Your task to perform on an android device: delete a single message in the gmail app Image 0: 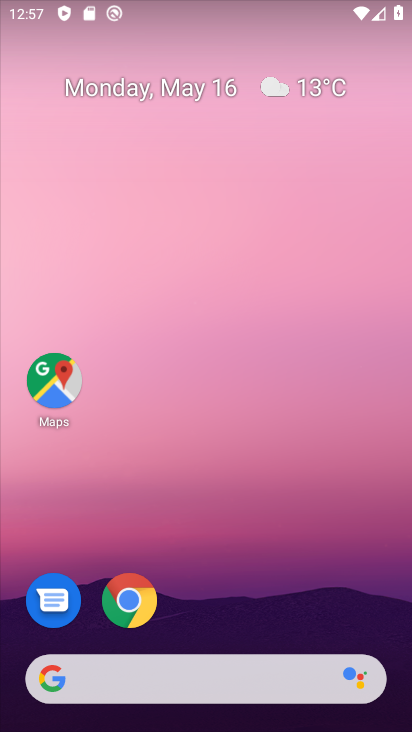
Step 0: drag from (223, 617) to (104, 141)
Your task to perform on an android device: delete a single message in the gmail app Image 1: 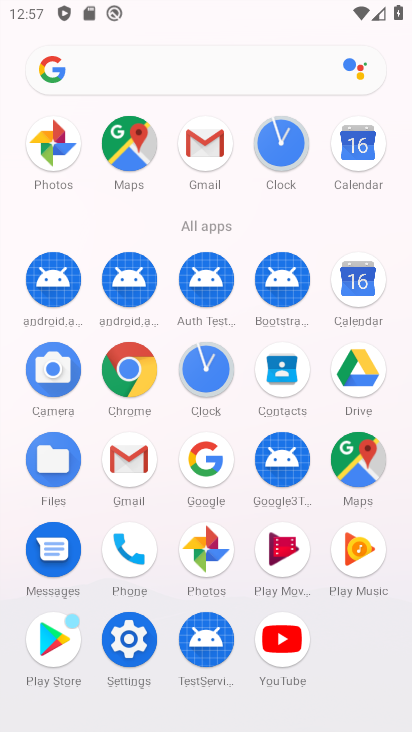
Step 1: click (204, 126)
Your task to perform on an android device: delete a single message in the gmail app Image 2: 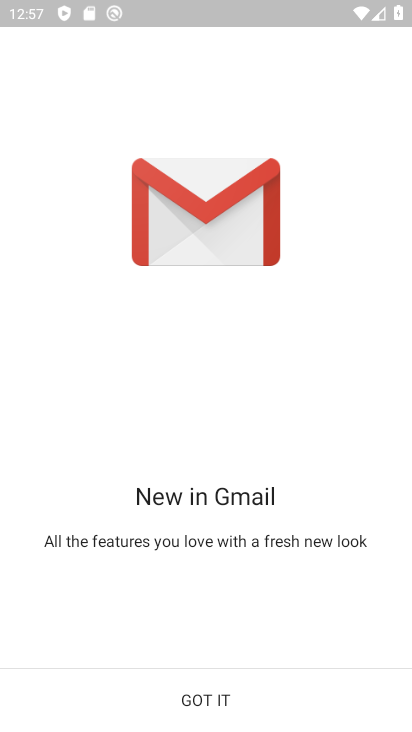
Step 2: click (187, 700)
Your task to perform on an android device: delete a single message in the gmail app Image 3: 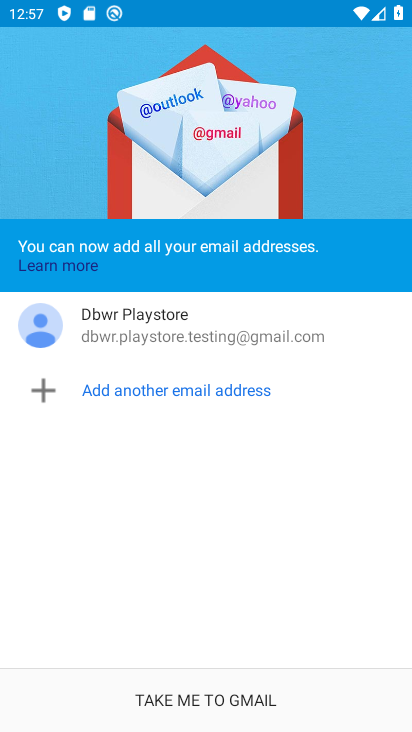
Step 3: click (212, 700)
Your task to perform on an android device: delete a single message in the gmail app Image 4: 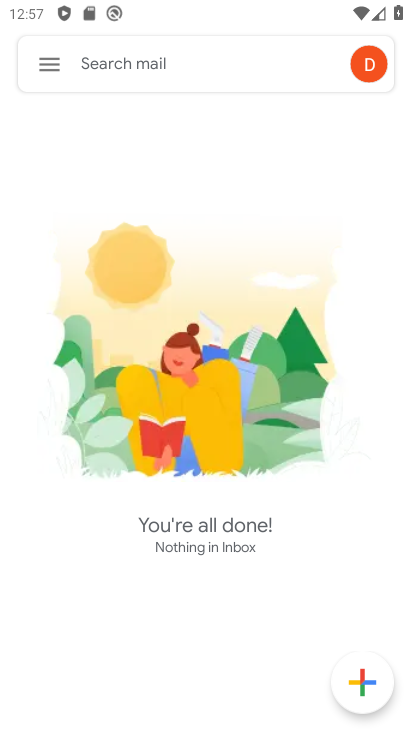
Step 4: task complete